Your task to perform on an android device: Toggle the flashlight Image 0: 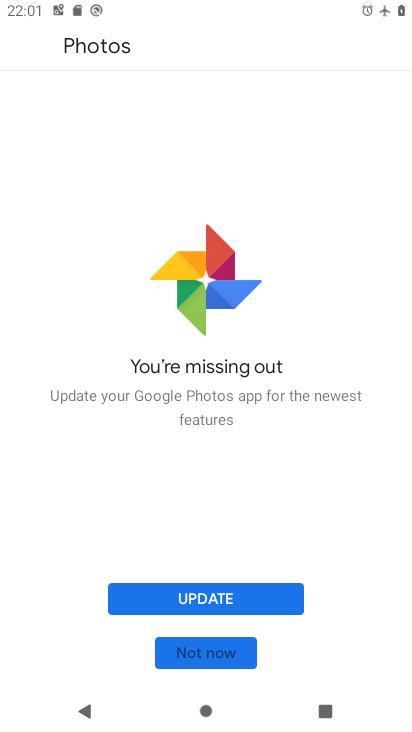
Step 0: press home button
Your task to perform on an android device: Toggle the flashlight Image 1: 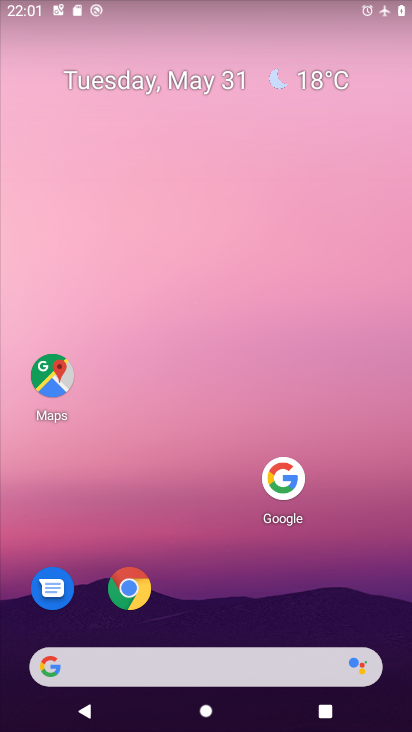
Step 1: task complete